Your task to perform on an android device: open chrome privacy settings Image 0: 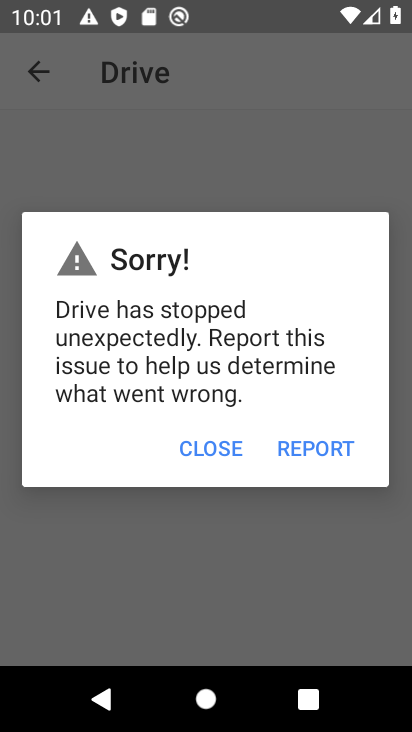
Step 0: press home button
Your task to perform on an android device: open chrome privacy settings Image 1: 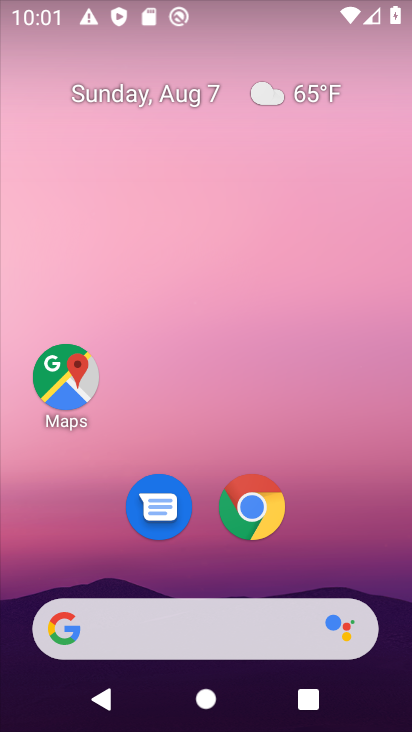
Step 1: drag from (178, 420) to (177, 92)
Your task to perform on an android device: open chrome privacy settings Image 2: 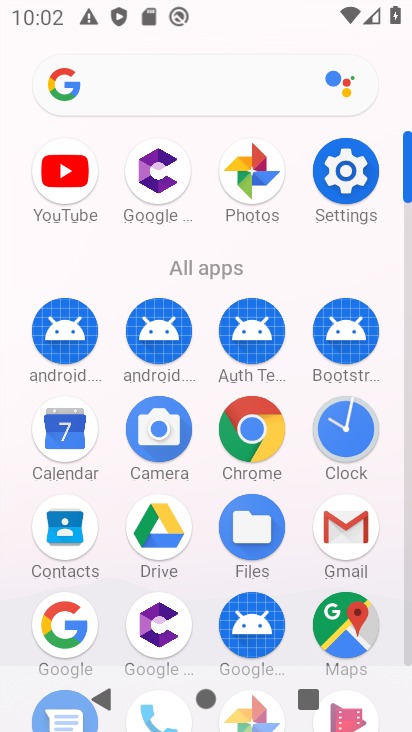
Step 2: click (346, 174)
Your task to perform on an android device: open chrome privacy settings Image 3: 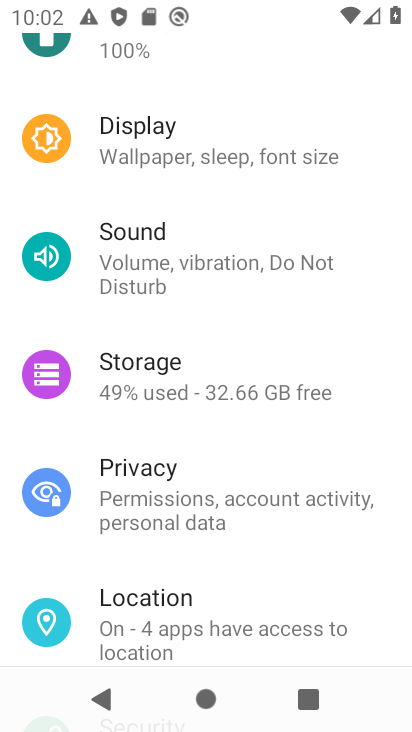
Step 3: drag from (275, 535) to (275, 180)
Your task to perform on an android device: open chrome privacy settings Image 4: 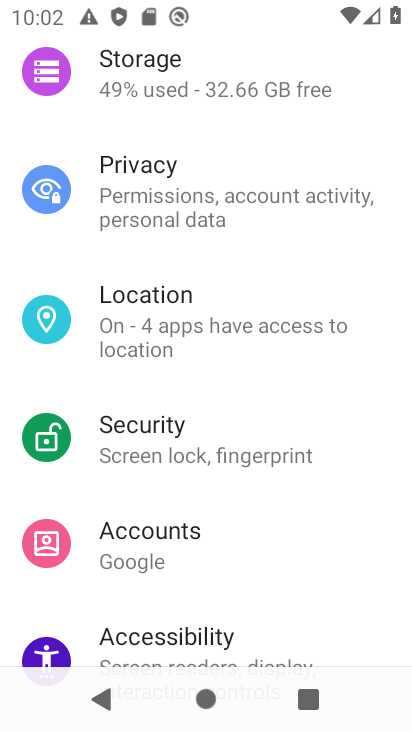
Step 4: click (174, 196)
Your task to perform on an android device: open chrome privacy settings Image 5: 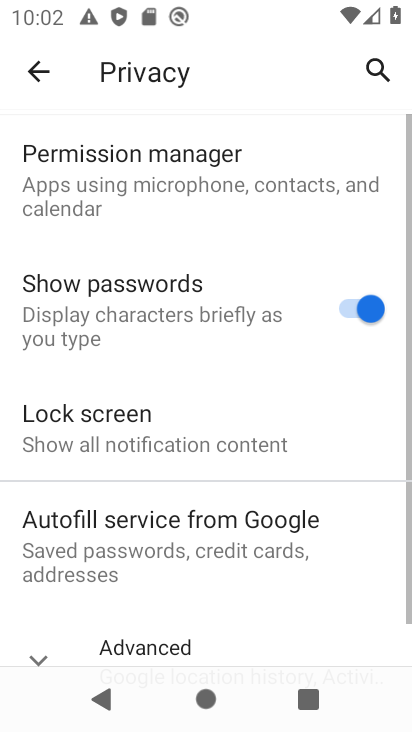
Step 5: task complete